Your task to perform on an android device: star an email in the gmail app Image 0: 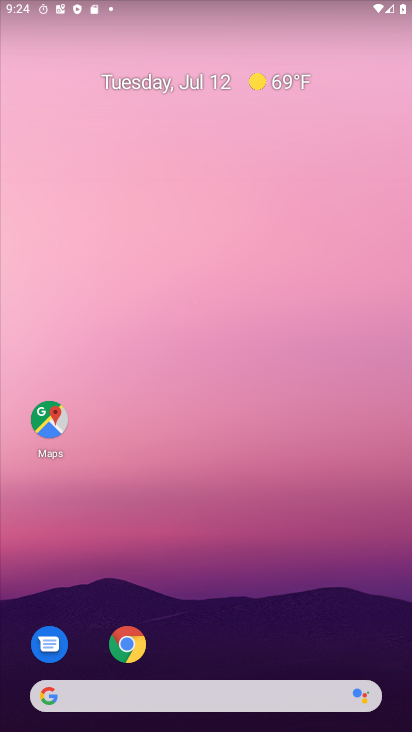
Step 0: drag from (225, 663) to (241, 86)
Your task to perform on an android device: star an email in the gmail app Image 1: 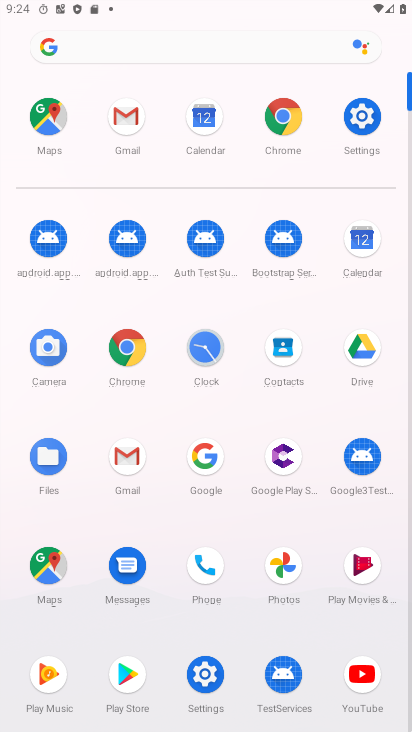
Step 1: click (124, 452)
Your task to perform on an android device: star an email in the gmail app Image 2: 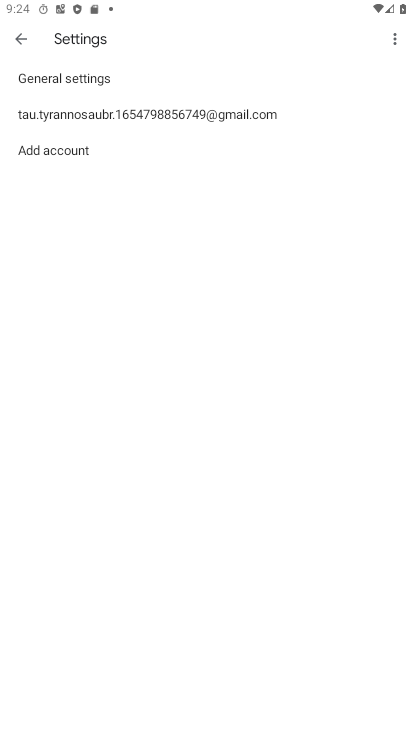
Step 2: click (21, 34)
Your task to perform on an android device: star an email in the gmail app Image 3: 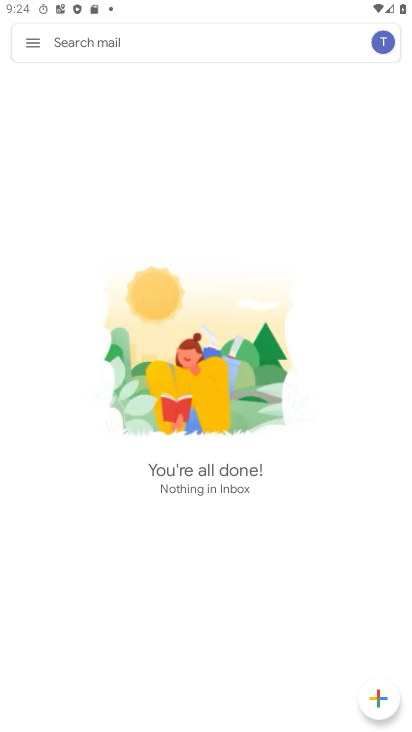
Step 3: task complete